Your task to perform on an android device: add a contact Image 0: 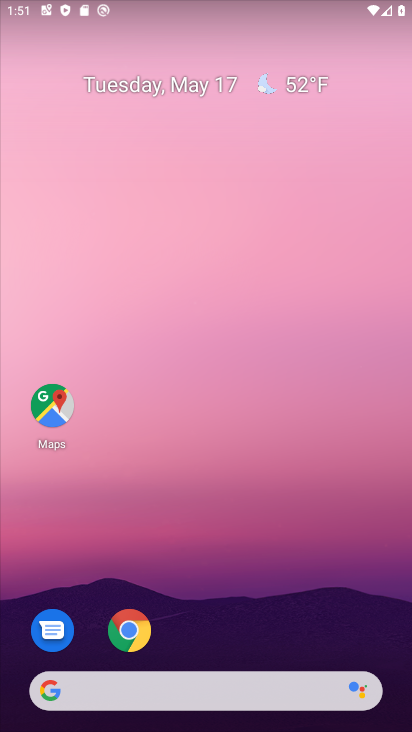
Step 0: drag from (189, 609) to (305, 58)
Your task to perform on an android device: add a contact Image 1: 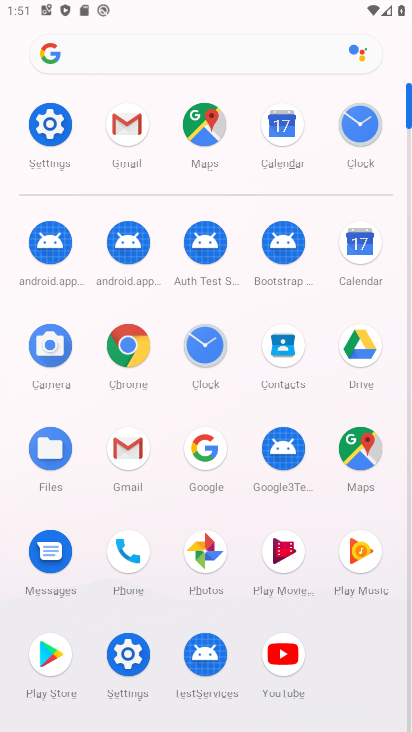
Step 1: click (293, 344)
Your task to perform on an android device: add a contact Image 2: 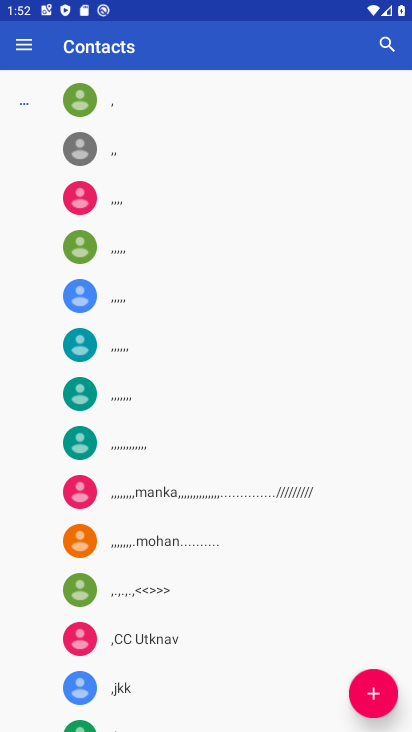
Step 2: click (370, 691)
Your task to perform on an android device: add a contact Image 3: 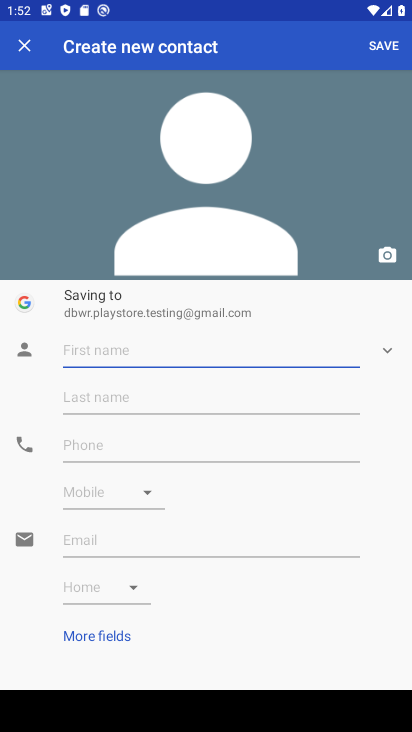
Step 3: click (100, 342)
Your task to perform on an android device: add a contact Image 4: 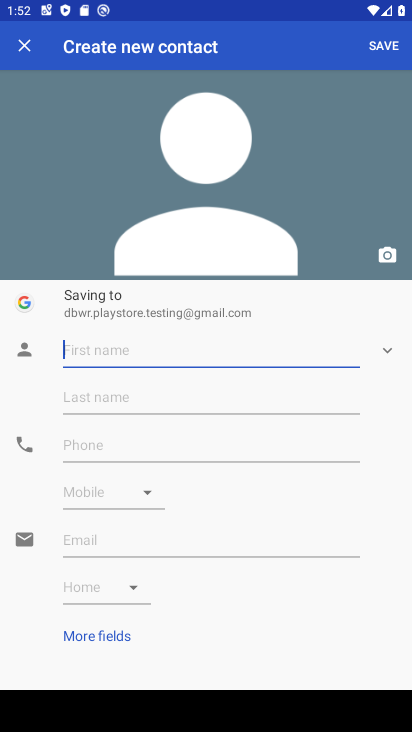
Step 4: type ""
Your task to perform on an android device: add a contact Image 5: 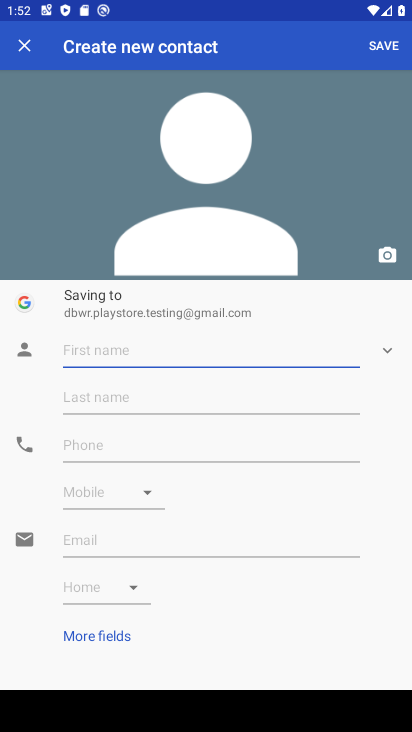
Step 5: type "ghb"
Your task to perform on an android device: add a contact Image 6: 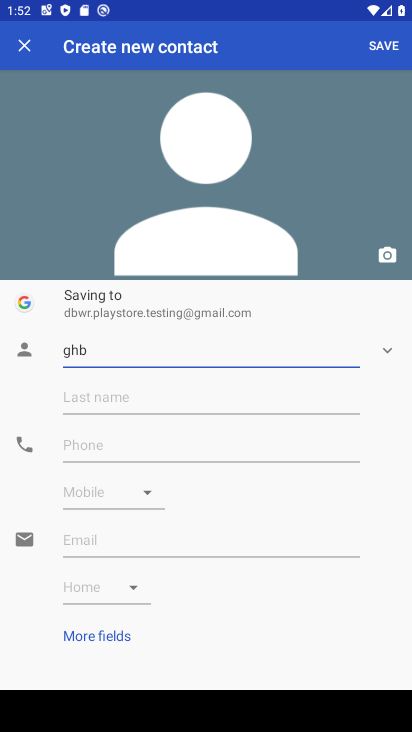
Step 6: click (86, 437)
Your task to perform on an android device: add a contact Image 7: 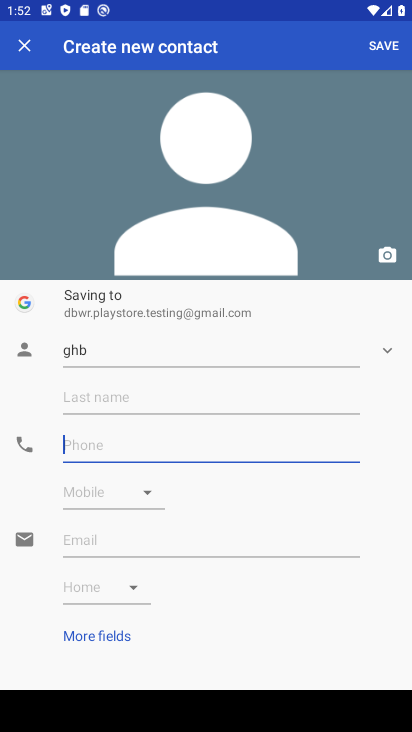
Step 7: type "8686"
Your task to perform on an android device: add a contact Image 8: 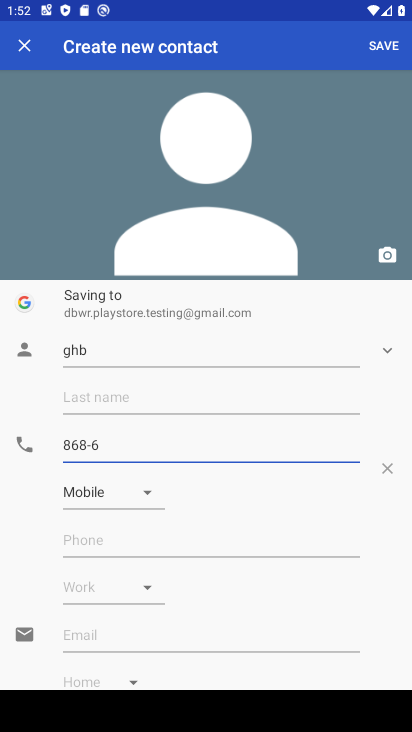
Step 8: click (376, 32)
Your task to perform on an android device: add a contact Image 9: 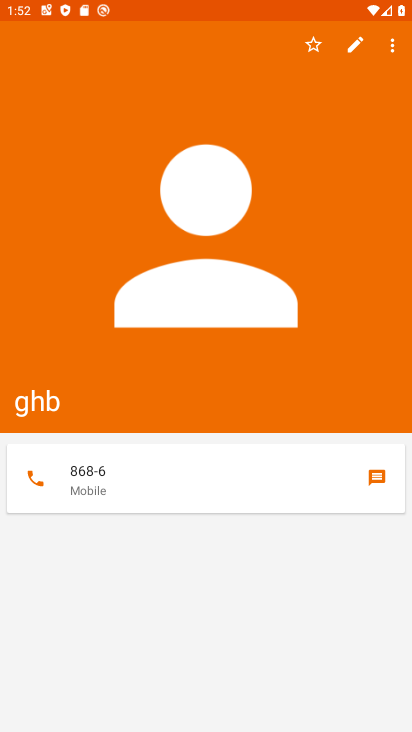
Step 9: task complete